Your task to perform on an android device: Show me recent news Image 0: 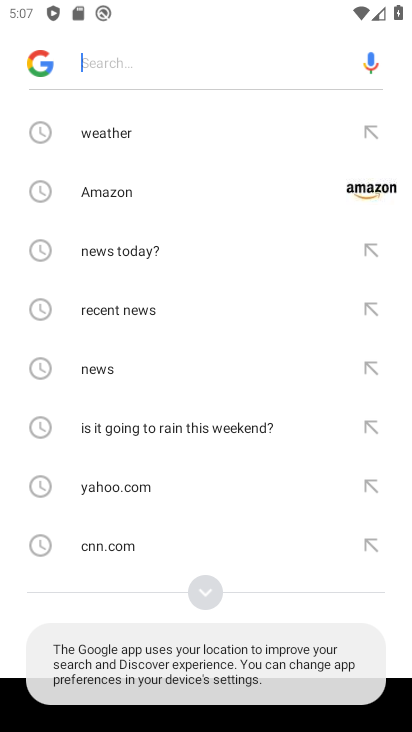
Step 0: click (137, 308)
Your task to perform on an android device: Show me recent news Image 1: 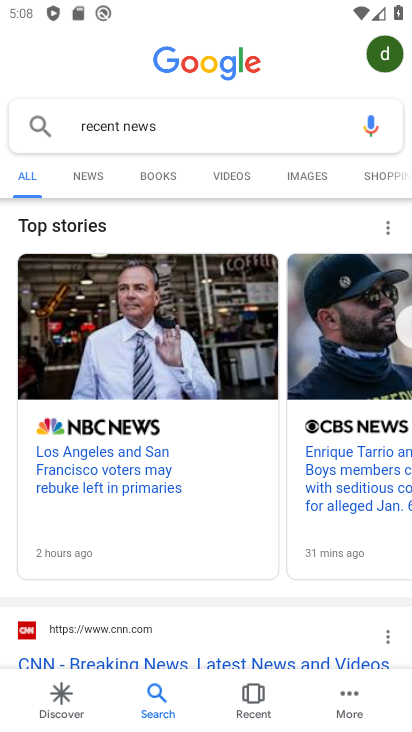
Step 1: task complete